Your task to perform on an android device: allow cookies in the chrome app Image 0: 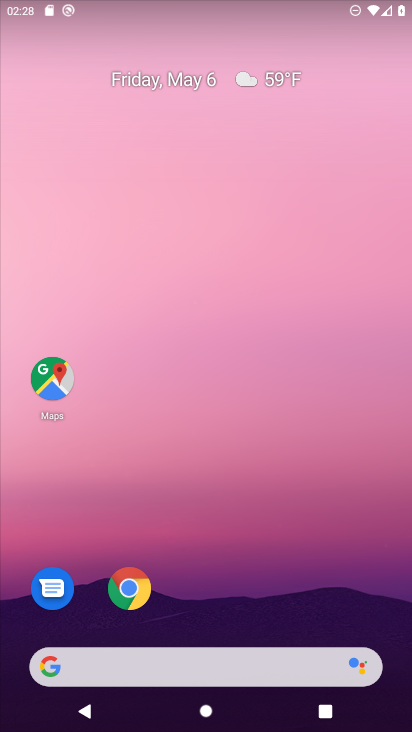
Step 0: click (134, 587)
Your task to perform on an android device: allow cookies in the chrome app Image 1: 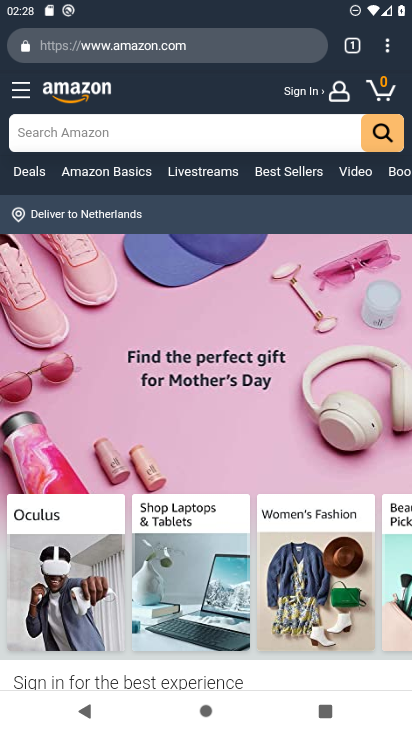
Step 1: click (387, 43)
Your task to perform on an android device: allow cookies in the chrome app Image 2: 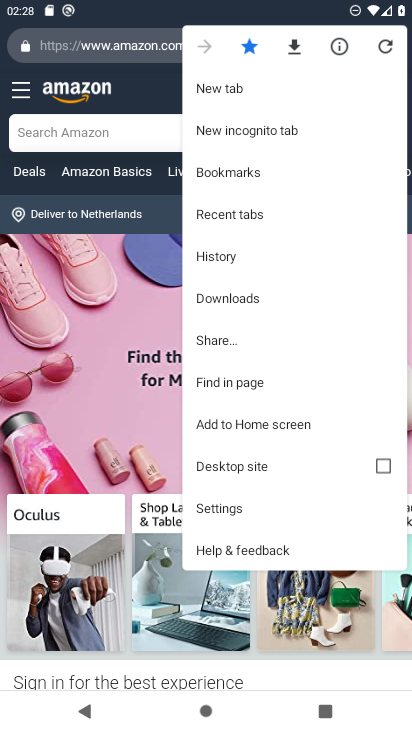
Step 2: click (222, 508)
Your task to perform on an android device: allow cookies in the chrome app Image 3: 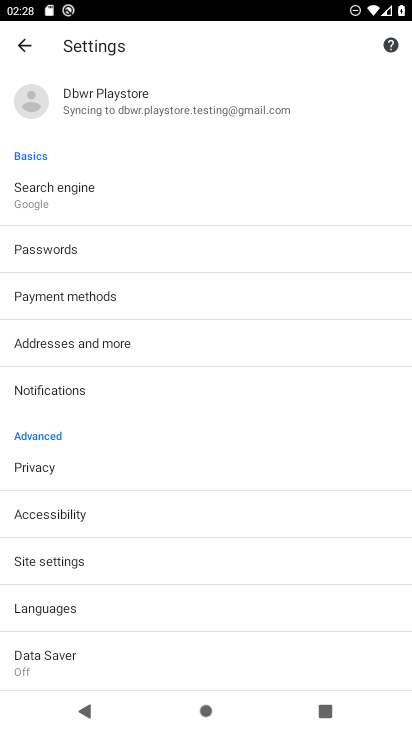
Step 3: click (49, 569)
Your task to perform on an android device: allow cookies in the chrome app Image 4: 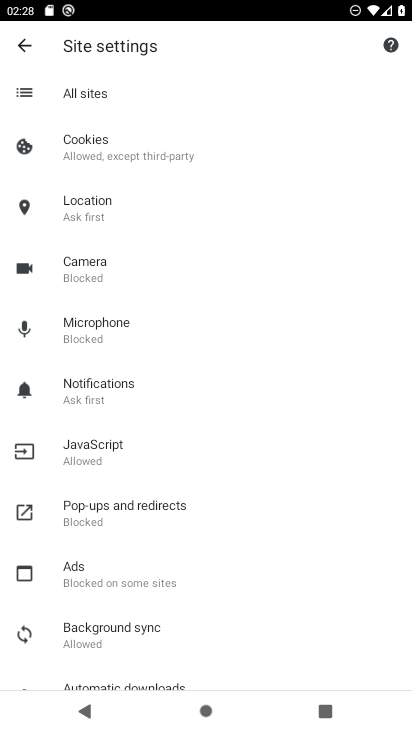
Step 4: click (107, 154)
Your task to perform on an android device: allow cookies in the chrome app Image 5: 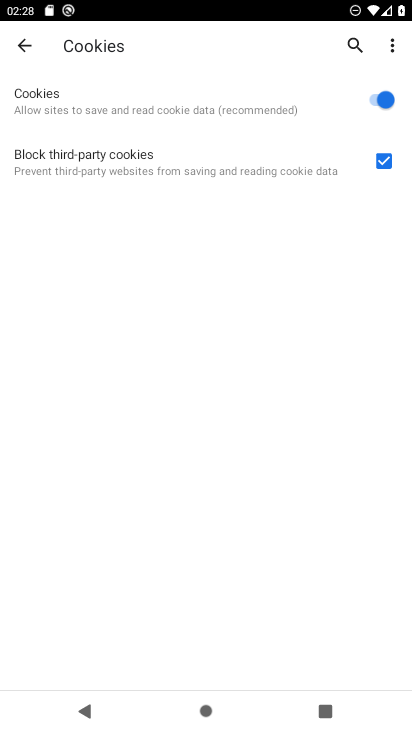
Step 5: task complete